Your task to perform on an android device: When is my next appointment? Image 0: 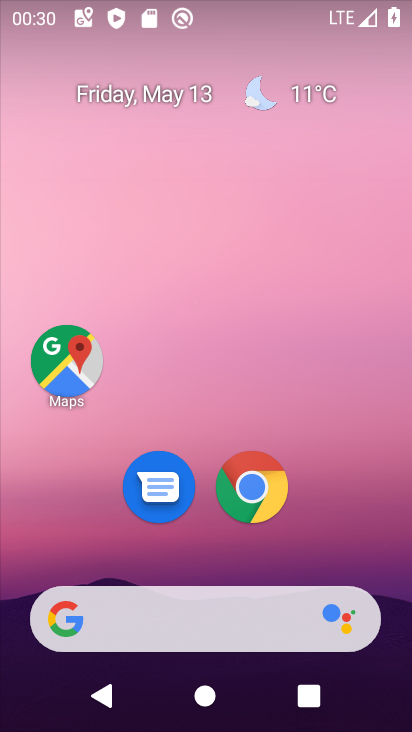
Step 0: click (198, 81)
Your task to perform on an android device: When is my next appointment? Image 1: 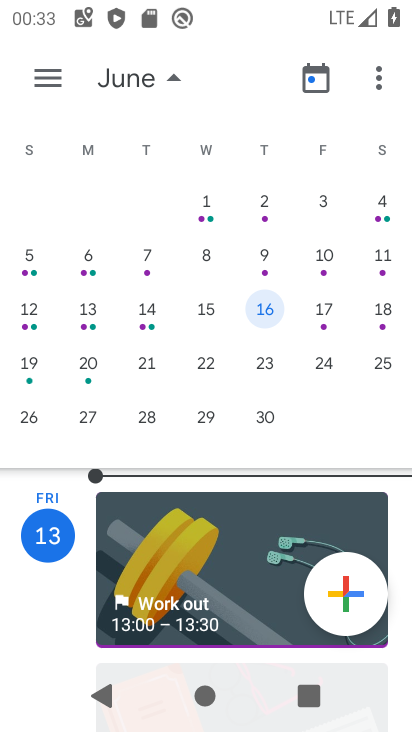
Step 1: task complete